Your task to perform on an android device: turn off location history Image 0: 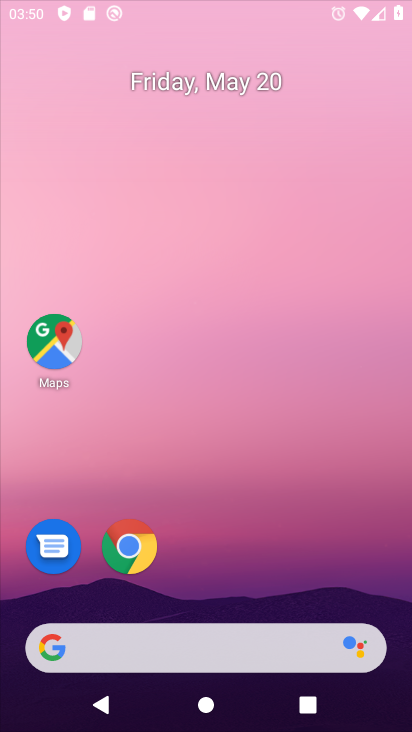
Step 0: drag from (306, 531) to (263, 115)
Your task to perform on an android device: turn off location history Image 1: 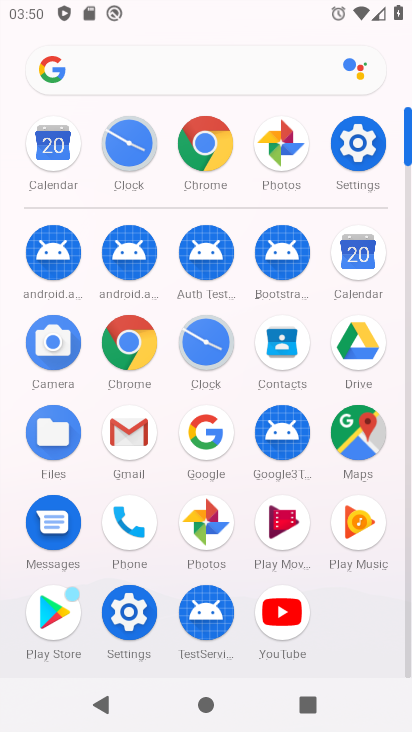
Step 1: click (343, 140)
Your task to perform on an android device: turn off location history Image 2: 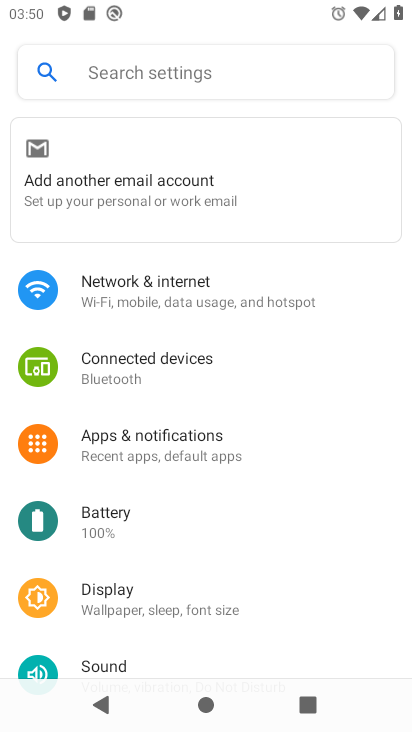
Step 2: drag from (236, 444) to (363, 154)
Your task to perform on an android device: turn off location history Image 3: 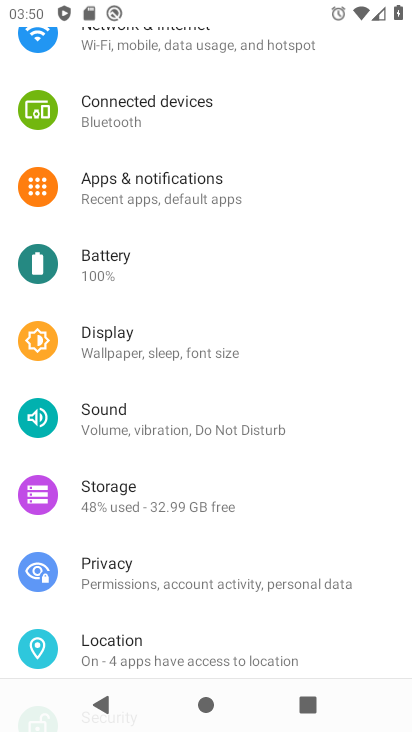
Step 3: click (120, 660)
Your task to perform on an android device: turn off location history Image 4: 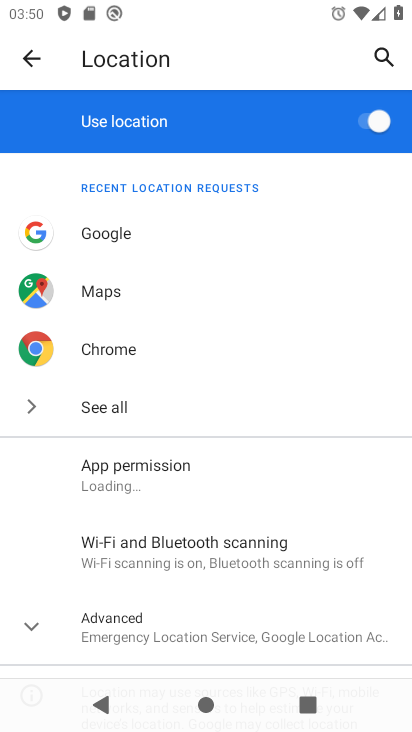
Step 4: click (361, 119)
Your task to perform on an android device: turn off location history Image 5: 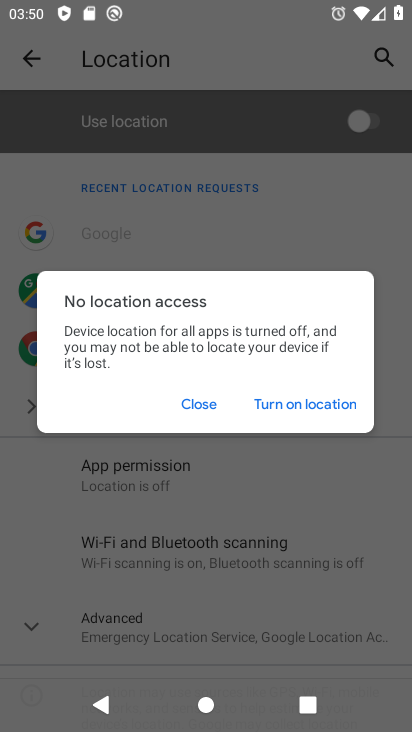
Step 5: task complete